Your task to perform on an android device: Open the map Image 0: 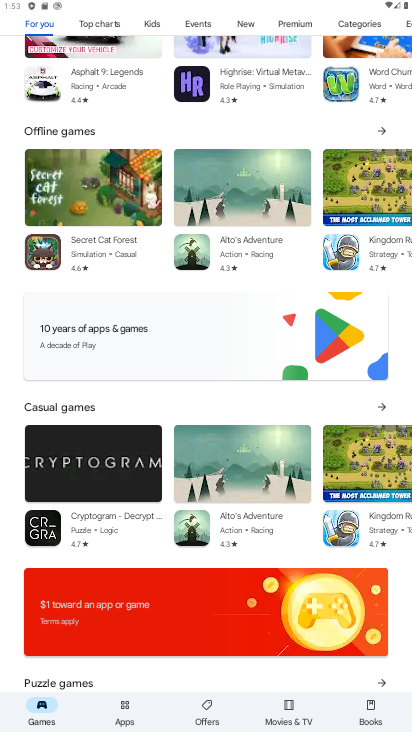
Step 0: press home button
Your task to perform on an android device: Open the map Image 1: 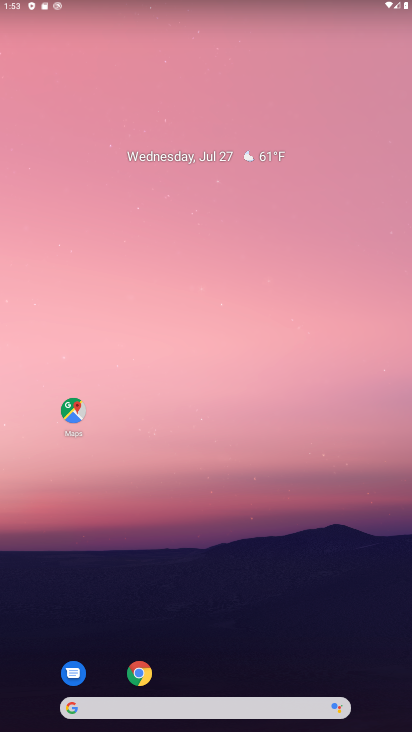
Step 1: click (69, 411)
Your task to perform on an android device: Open the map Image 2: 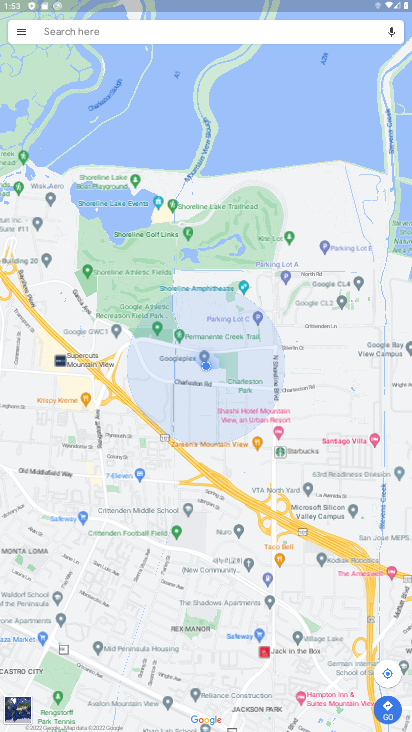
Step 2: task complete